Your task to perform on an android device: Search for the best rated mattress topper on Target. Image 0: 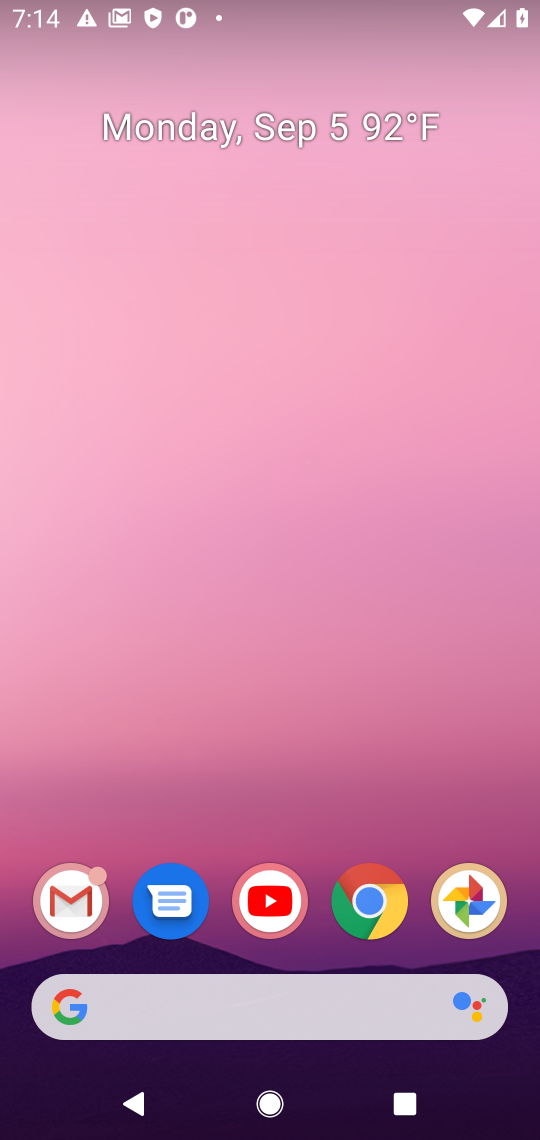
Step 0: click (344, 933)
Your task to perform on an android device: Search for the best rated mattress topper on Target. Image 1: 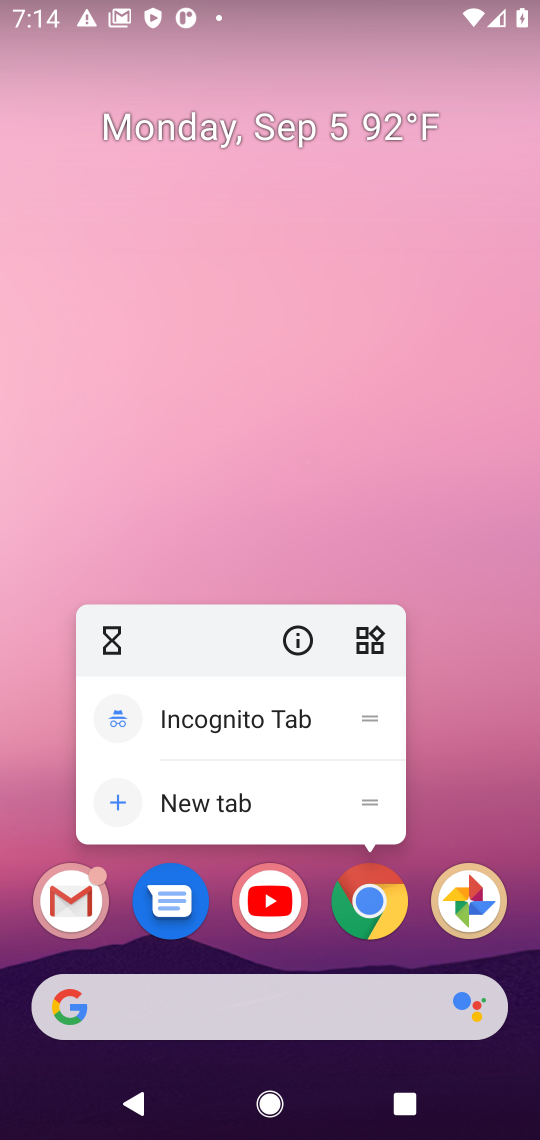
Step 1: click (394, 923)
Your task to perform on an android device: Search for the best rated mattress topper on Target. Image 2: 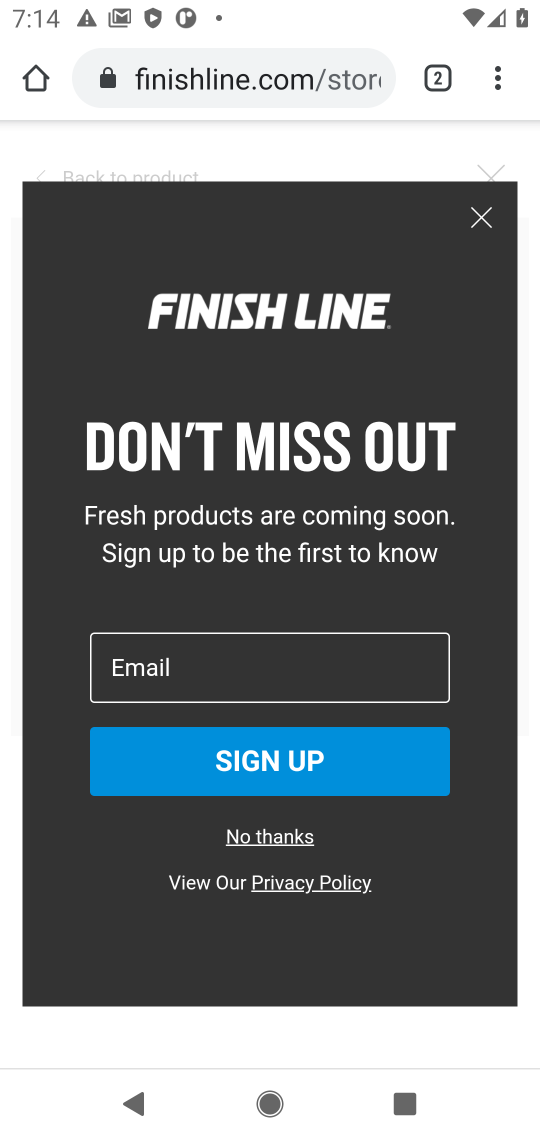
Step 2: click (473, 219)
Your task to perform on an android device: Search for the best rated mattress topper on Target. Image 3: 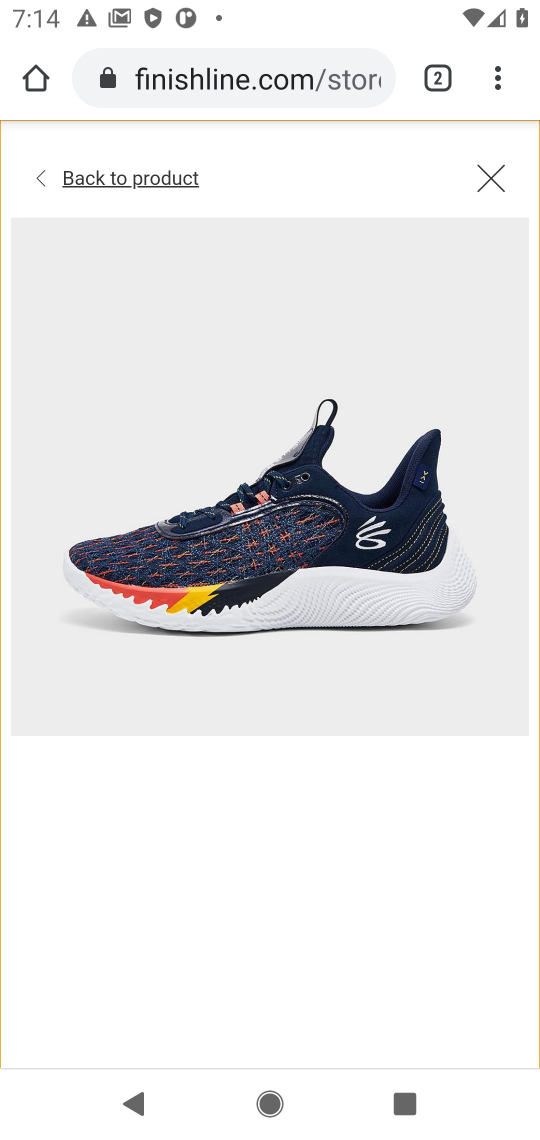
Step 3: click (479, 175)
Your task to perform on an android device: Search for the best rated mattress topper on Target. Image 4: 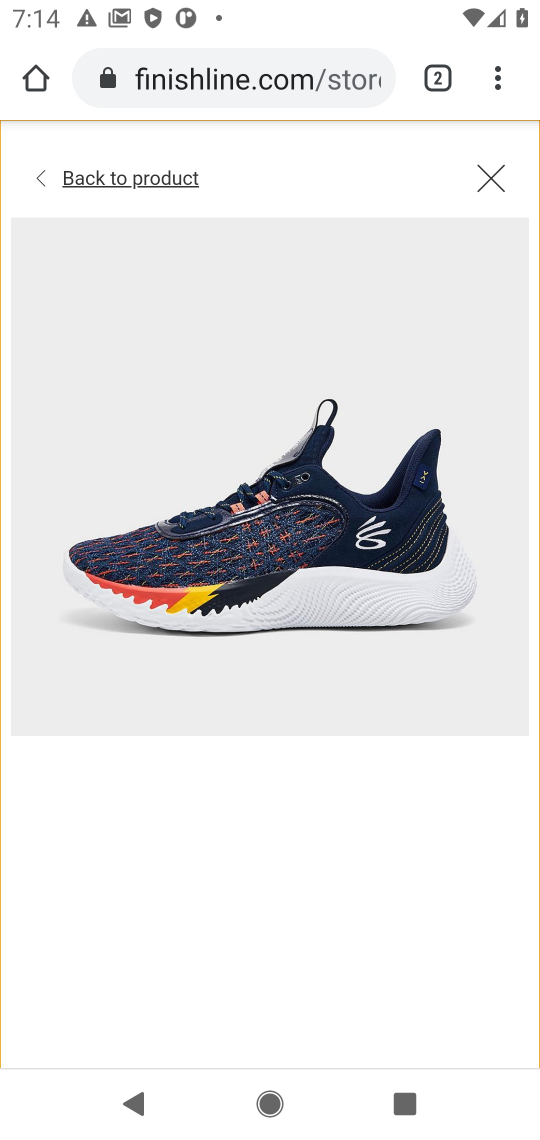
Step 4: click (348, 93)
Your task to perform on an android device: Search for the best rated mattress topper on Target. Image 5: 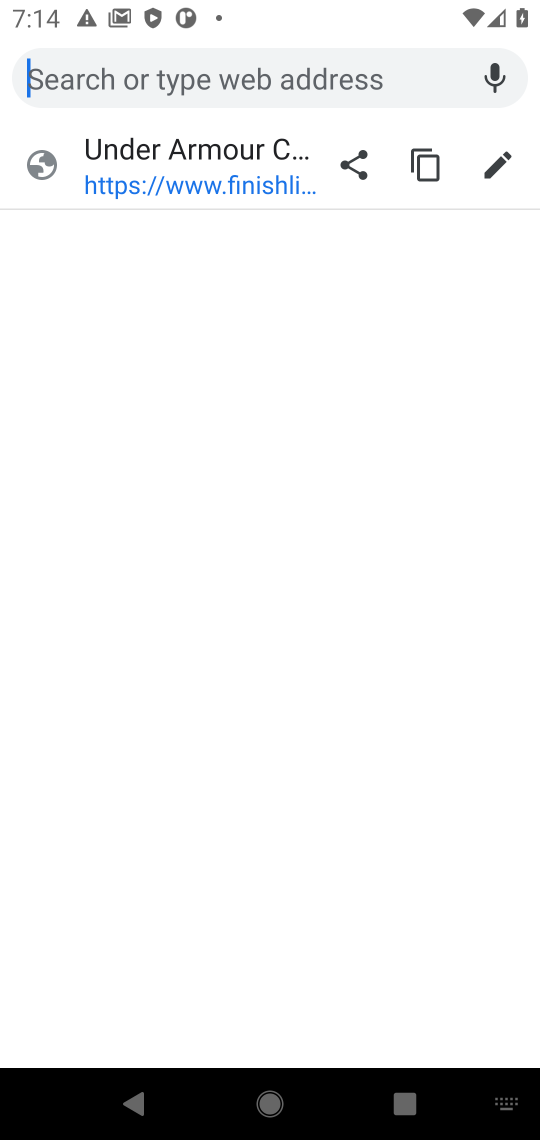
Step 5: type "matterss"
Your task to perform on an android device: Search for the best rated mattress topper on Target. Image 6: 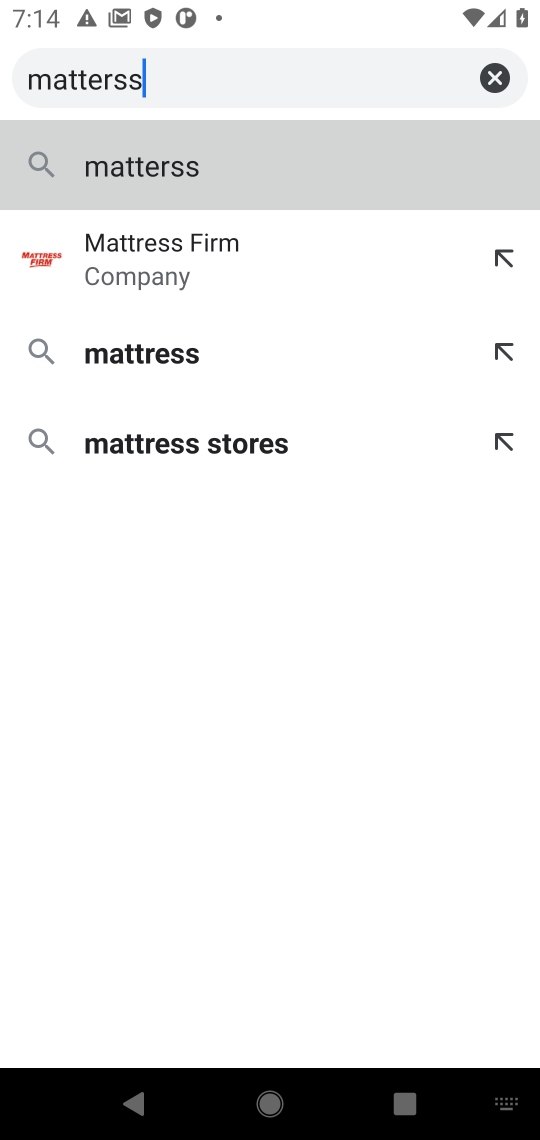
Step 6: click (205, 347)
Your task to perform on an android device: Search for the best rated mattress topper on Target. Image 7: 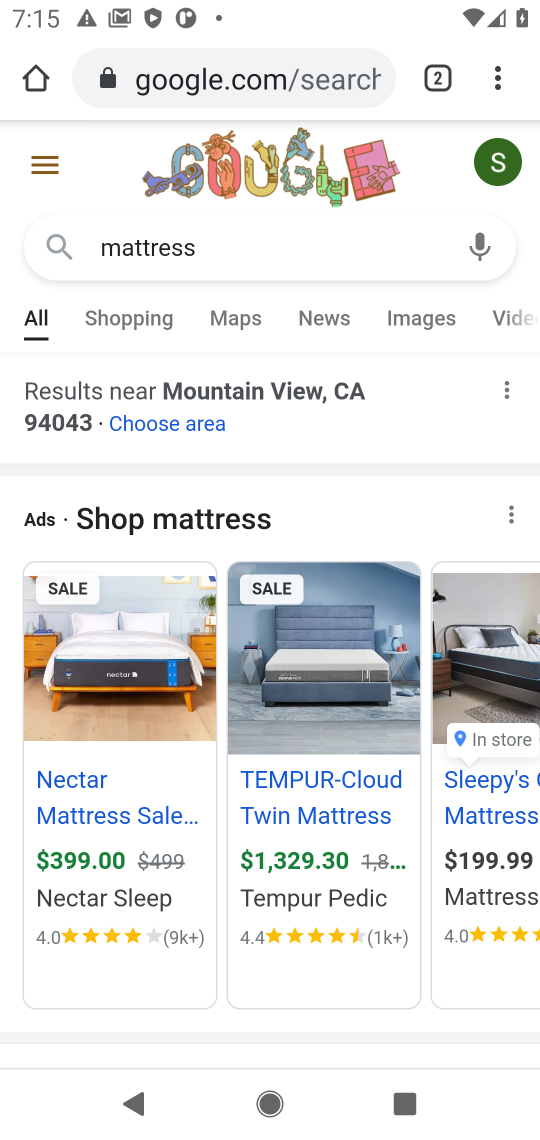
Step 7: click (124, 821)
Your task to perform on an android device: Search for the best rated mattress topper on Target. Image 8: 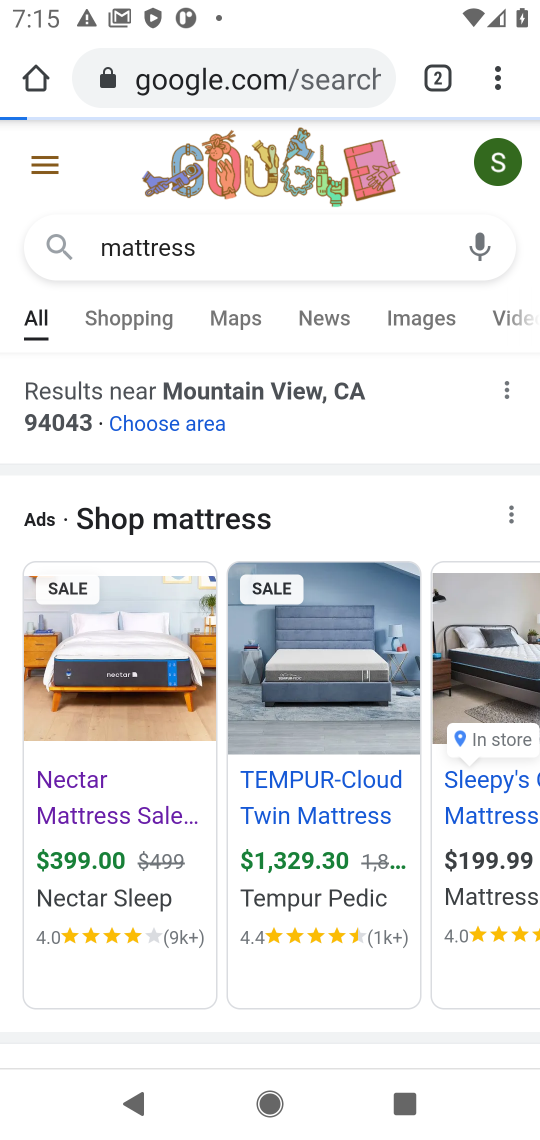
Step 8: task complete